Your task to perform on an android device: Turn on the flashlight Image 0: 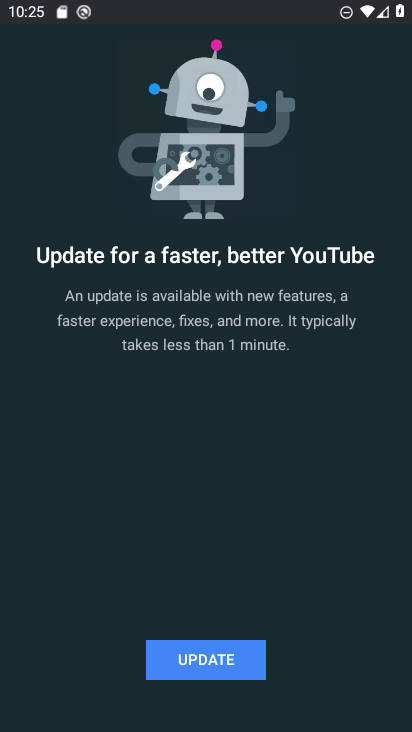
Step 0: press home button
Your task to perform on an android device: Turn on the flashlight Image 1: 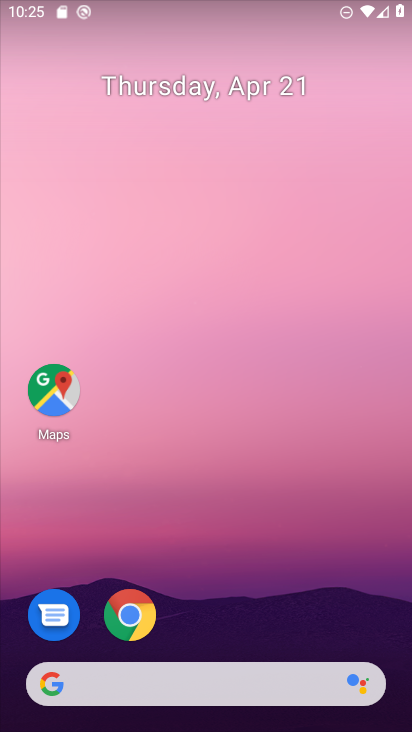
Step 1: drag from (217, 681) to (216, 108)
Your task to perform on an android device: Turn on the flashlight Image 2: 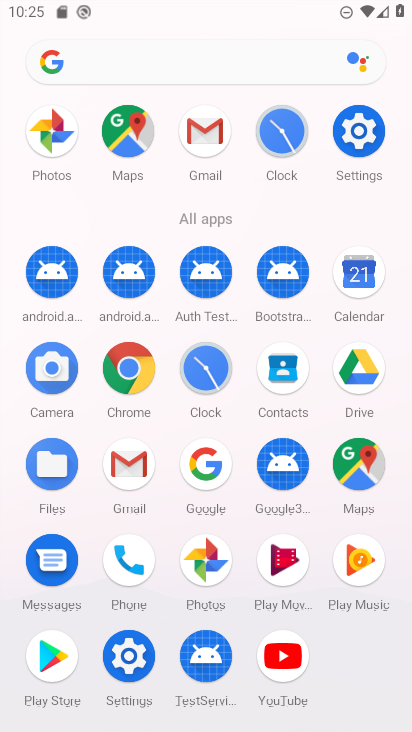
Step 2: click (363, 134)
Your task to perform on an android device: Turn on the flashlight Image 3: 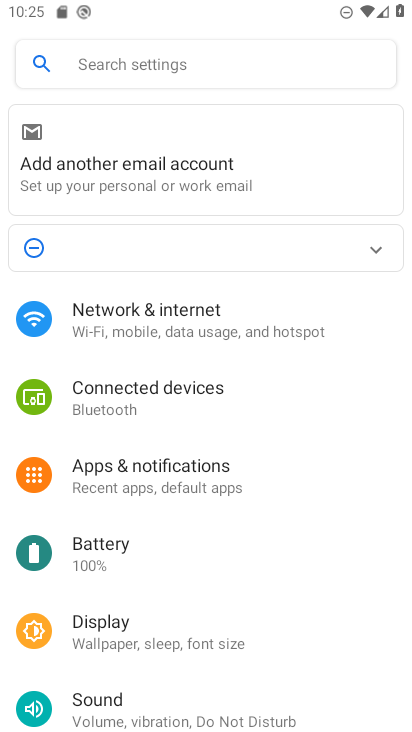
Step 3: task complete